Your task to perform on an android device: turn on javascript in the chrome app Image 0: 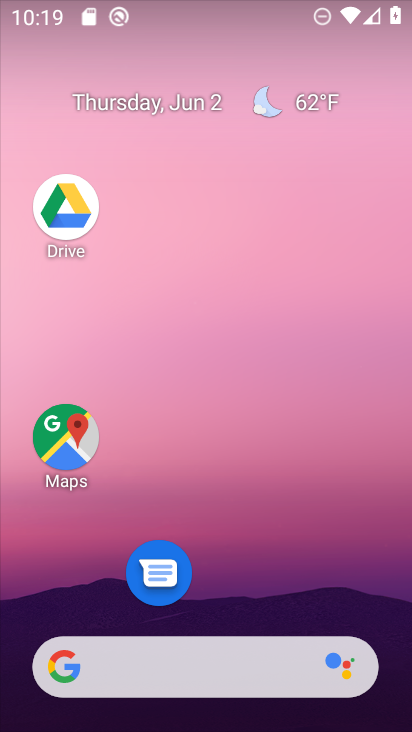
Step 0: drag from (235, 611) to (220, 58)
Your task to perform on an android device: turn on javascript in the chrome app Image 1: 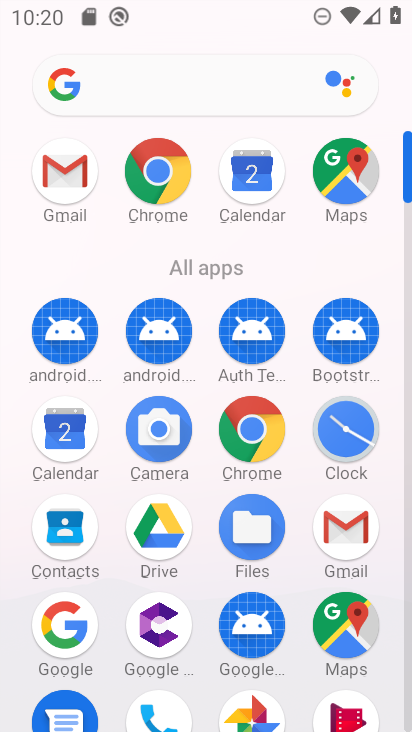
Step 1: click (262, 434)
Your task to perform on an android device: turn on javascript in the chrome app Image 2: 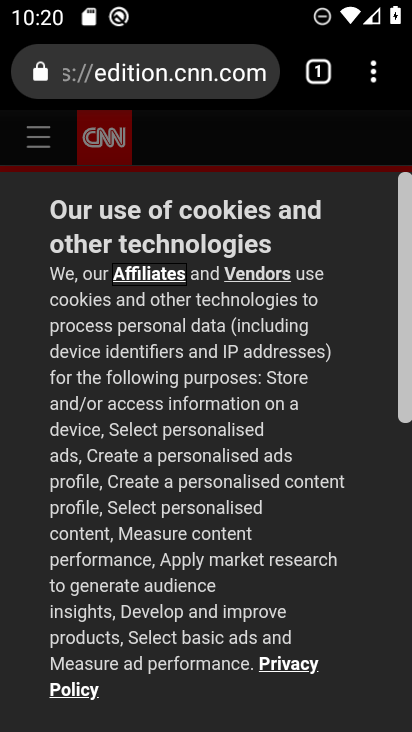
Step 2: drag from (373, 82) to (176, 580)
Your task to perform on an android device: turn on javascript in the chrome app Image 3: 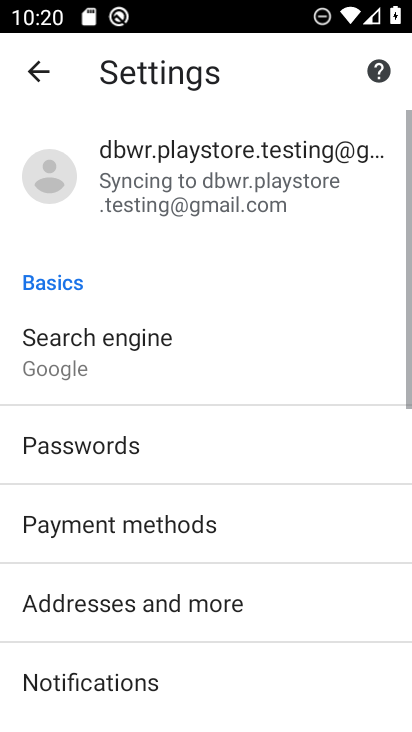
Step 3: drag from (178, 570) to (175, 84)
Your task to perform on an android device: turn on javascript in the chrome app Image 4: 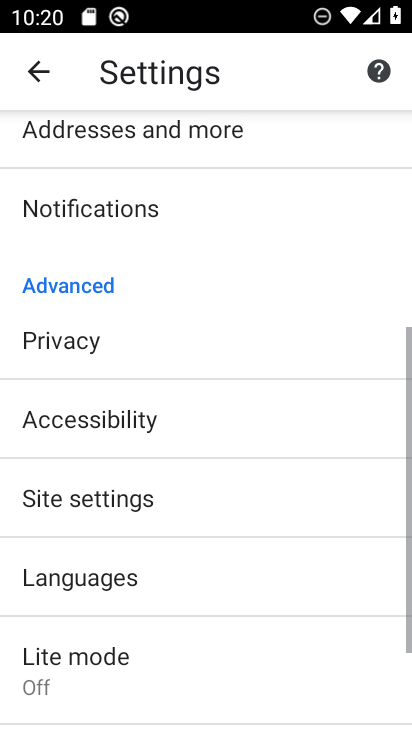
Step 4: click (137, 495)
Your task to perform on an android device: turn on javascript in the chrome app Image 5: 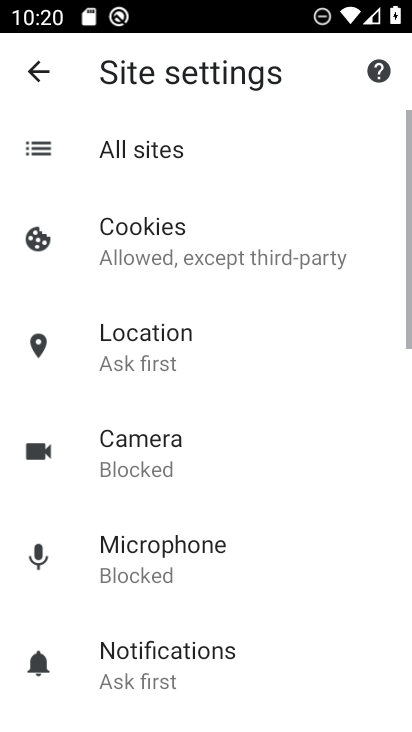
Step 5: drag from (137, 495) to (149, 133)
Your task to perform on an android device: turn on javascript in the chrome app Image 6: 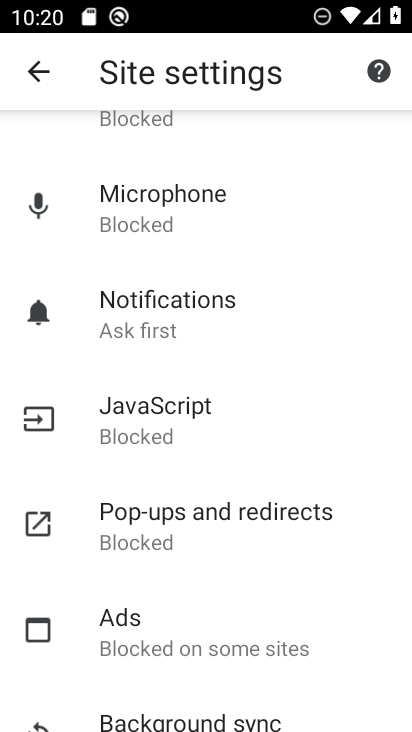
Step 6: click (171, 436)
Your task to perform on an android device: turn on javascript in the chrome app Image 7: 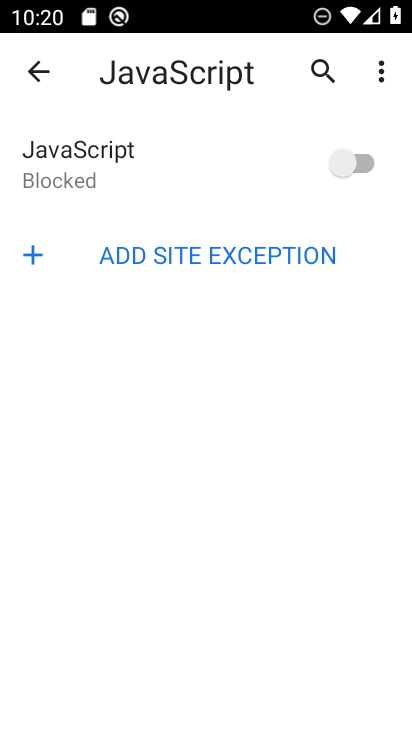
Step 7: click (342, 160)
Your task to perform on an android device: turn on javascript in the chrome app Image 8: 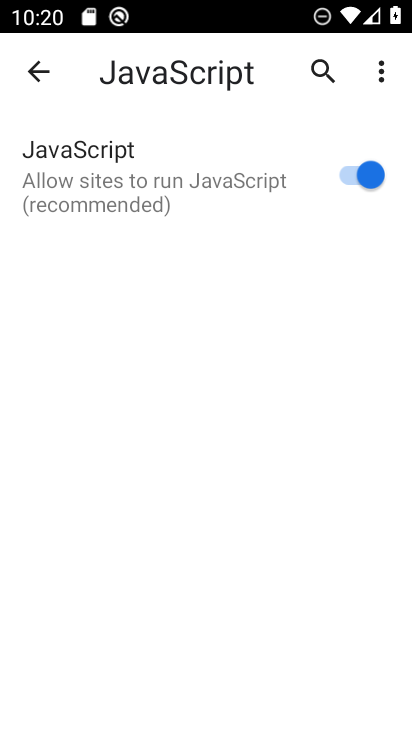
Step 8: task complete